Your task to perform on an android device: toggle location history Image 0: 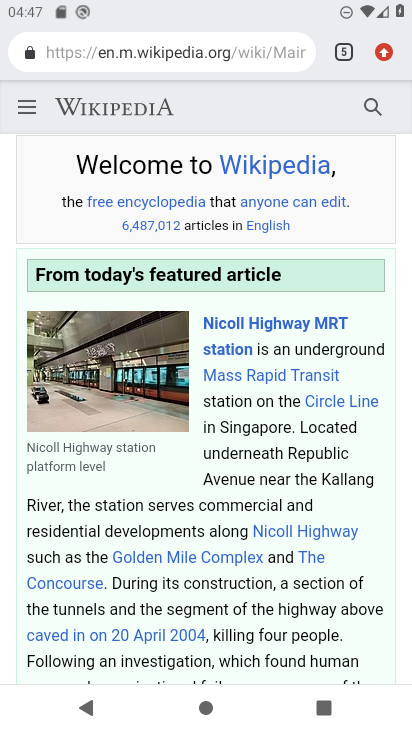
Step 0: drag from (274, 20) to (256, 649)
Your task to perform on an android device: toggle location history Image 1: 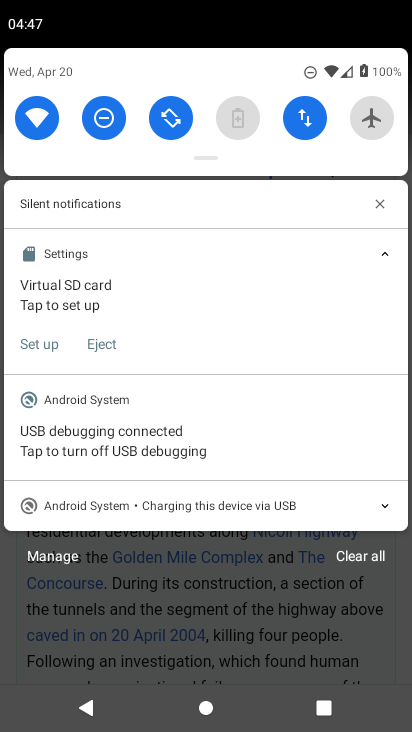
Step 1: drag from (169, 71) to (217, 653)
Your task to perform on an android device: toggle location history Image 2: 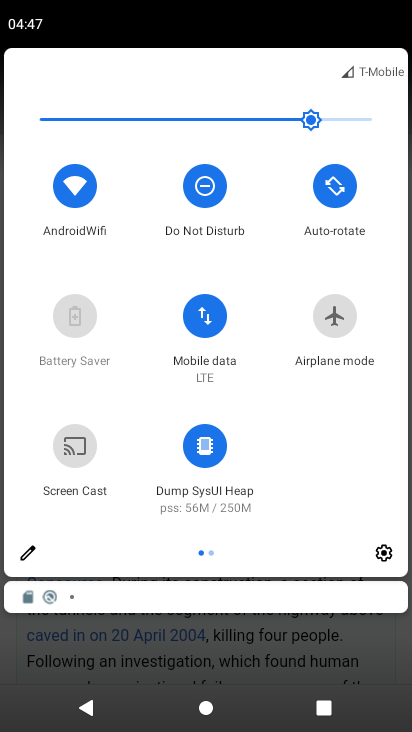
Step 2: click (383, 561)
Your task to perform on an android device: toggle location history Image 3: 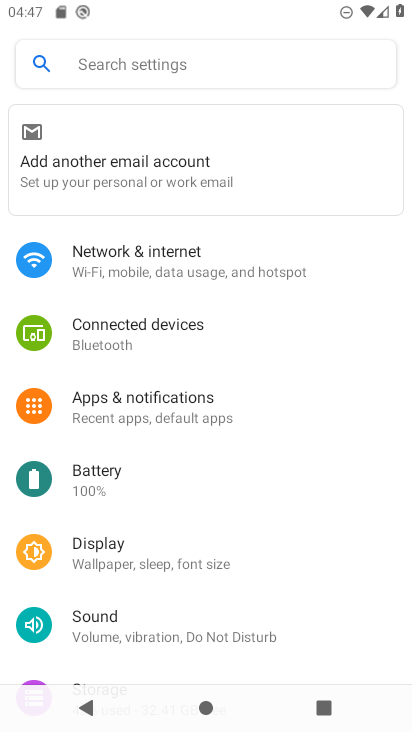
Step 3: drag from (89, 612) to (177, 99)
Your task to perform on an android device: toggle location history Image 4: 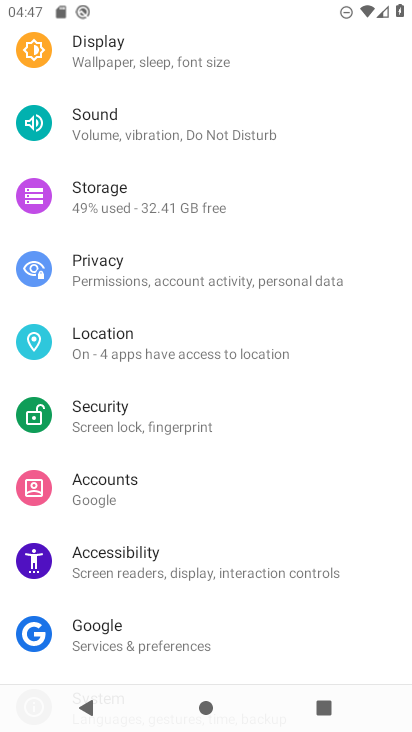
Step 4: click (107, 350)
Your task to perform on an android device: toggle location history Image 5: 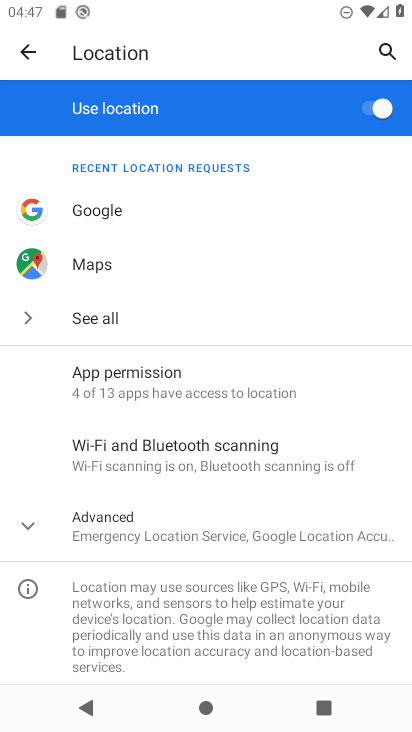
Step 5: click (75, 537)
Your task to perform on an android device: toggle location history Image 6: 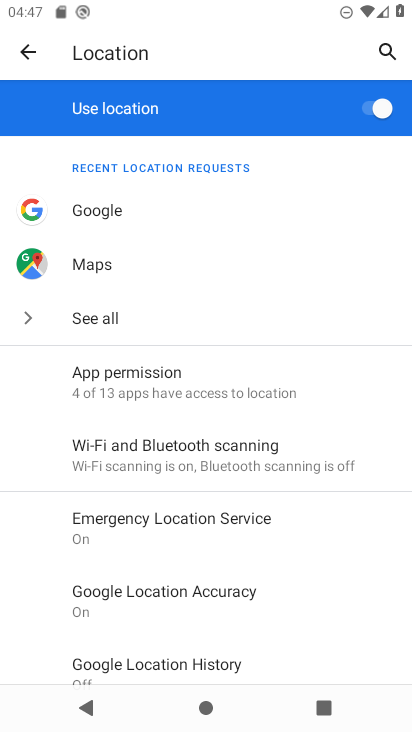
Step 6: drag from (107, 651) to (117, 393)
Your task to perform on an android device: toggle location history Image 7: 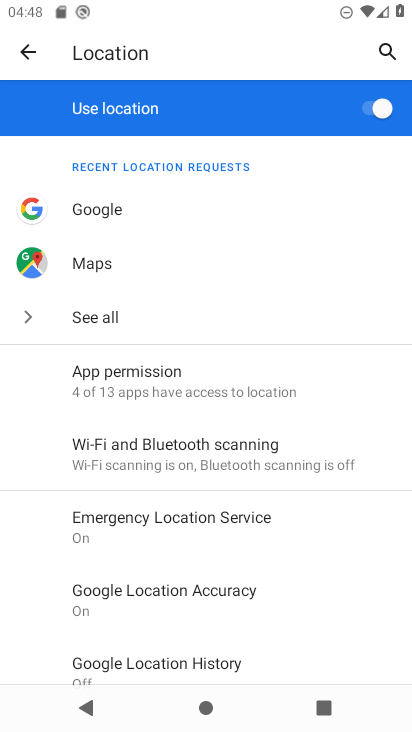
Step 7: click (182, 650)
Your task to perform on an android device: toggle location history Image 8: 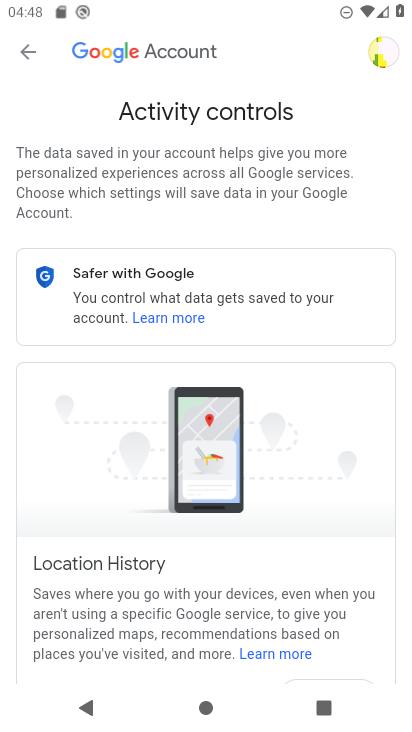
Step 8: drag from (182, 650) to (263, 64)
Your task to perform on an android device: toggle location history Image 9: 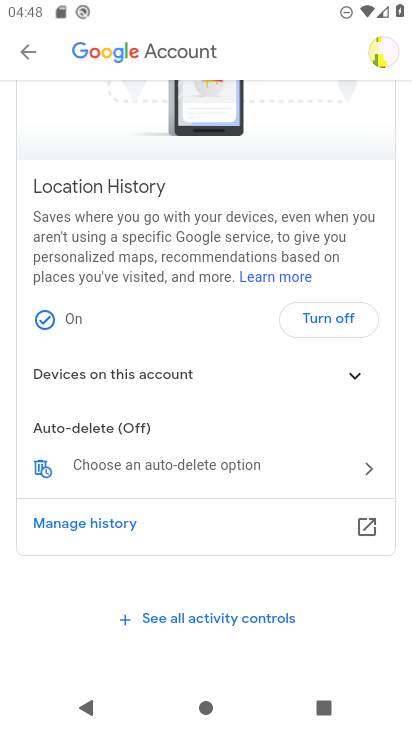
Step 9: drag from (272, 437) to (207, 125)
Your task to perform on an android device: toggle location history Image 10: 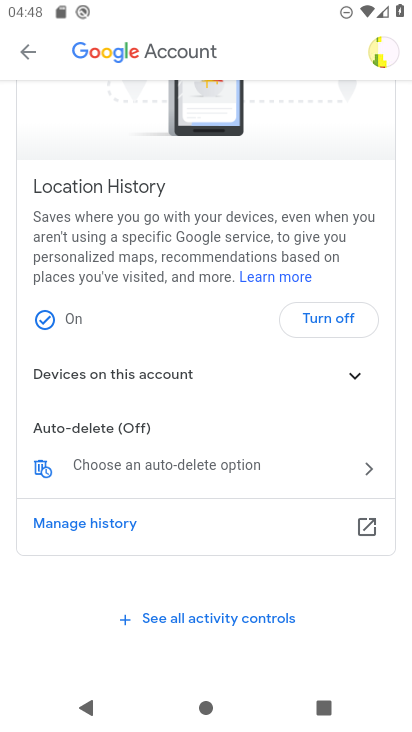
Step 10: click (328, 326)
Your task to perform on an android device: toggle location history Image 11: 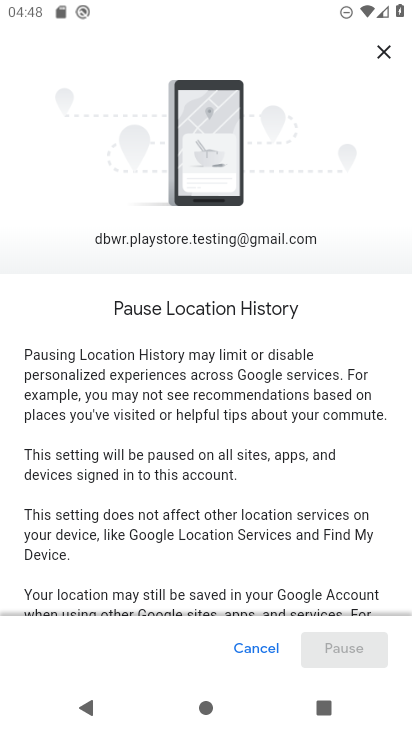
Step 11: drag from (238, 517) to (148, 137)
Your task to perform on an android device: toggle location history Image 12: 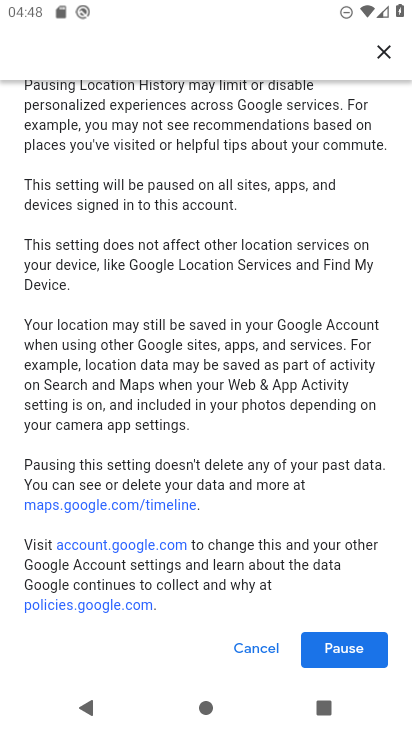
Step 12: click (351, 647)
Your task to perform on an android device: toggle location history Image 13: 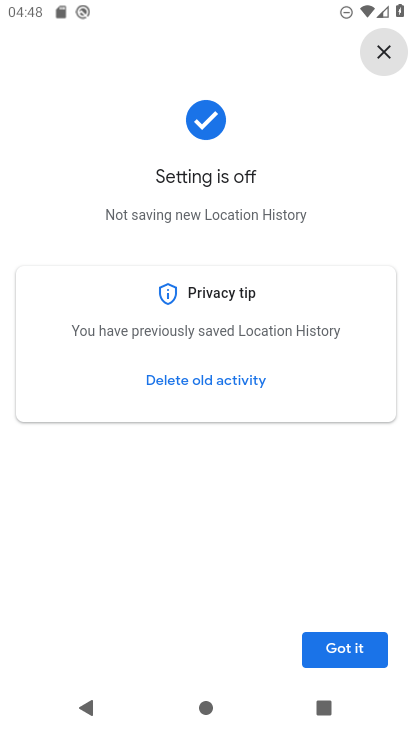
Step 13: click (351, 647)
Your task to perform on an android device: toggle location history Image 14: 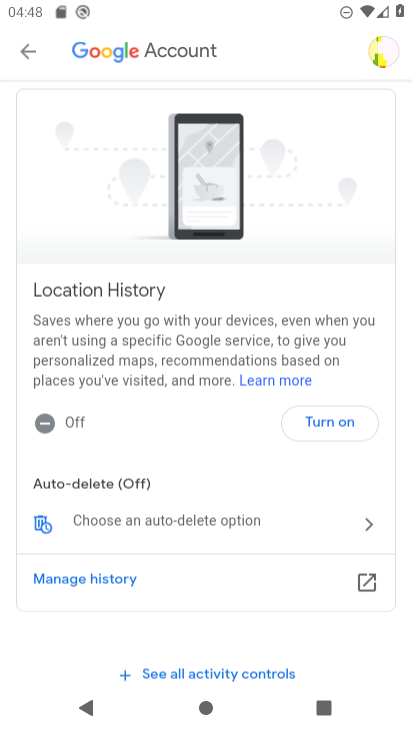
Step 14: task complete